Your task to perform on an android device: Go to accessibility settings Image 0: 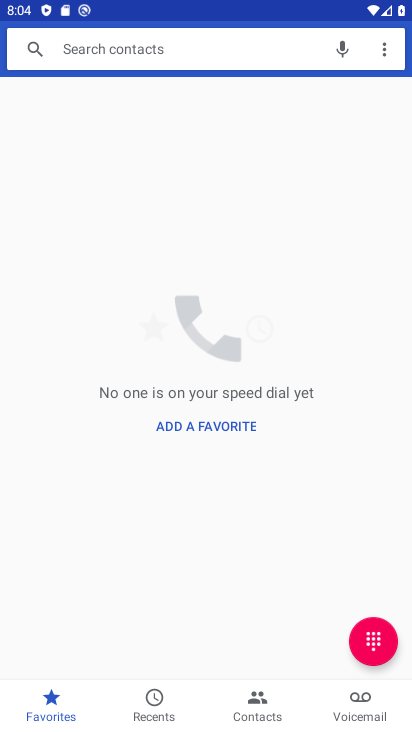
Step 0: press home button
Your task to perform on an android device: Go to accessibility settings Image 1: 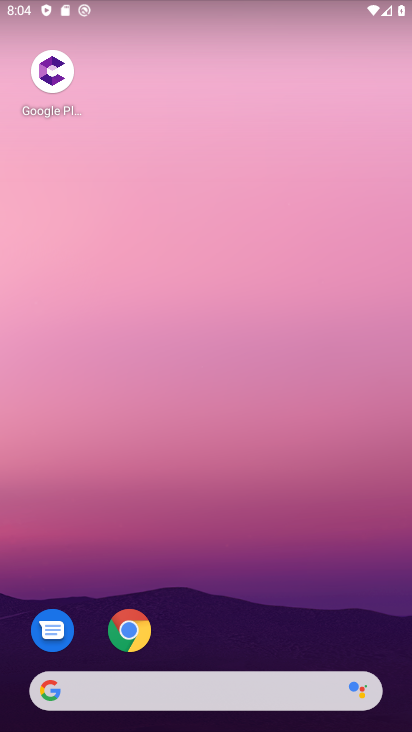
Step 1: drag from (378, 622) to (362, 259)
Your task to perform on an android device: Go to accessibility settings Image 2: 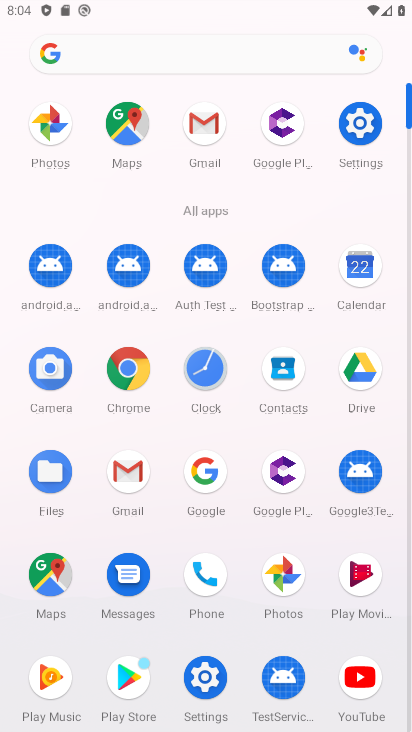
Step 2: click (215, 689)
Your task to perform on an android device: Go to accessibility settings Image 3: 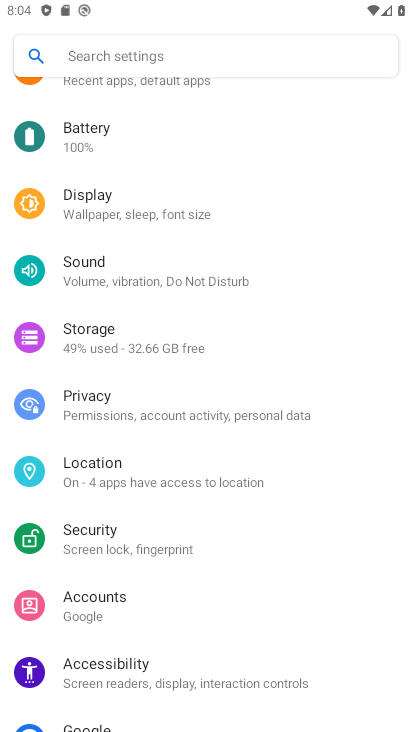
Step 3: drag from (334, 442) to (337, 537)
Your task to perform on an android device: Go to accessibility settings Image 4: 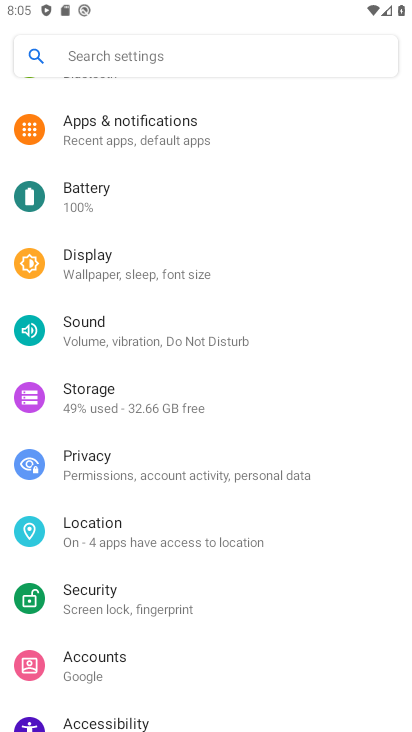
Step 4: drag from (348, 396) to (348, 521)
Your task to perform on an android device: Go to accessibility settings Image 5: 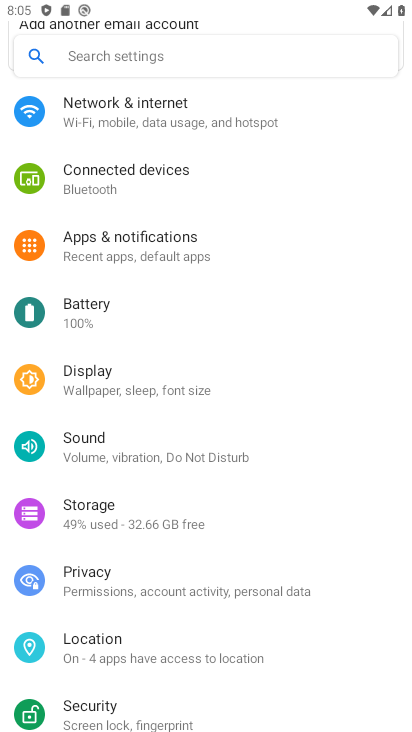
Step 5: drag from (344, 481) to (347, 519)
Your task to perform on an android device: Go to accessibility settings Image 6: 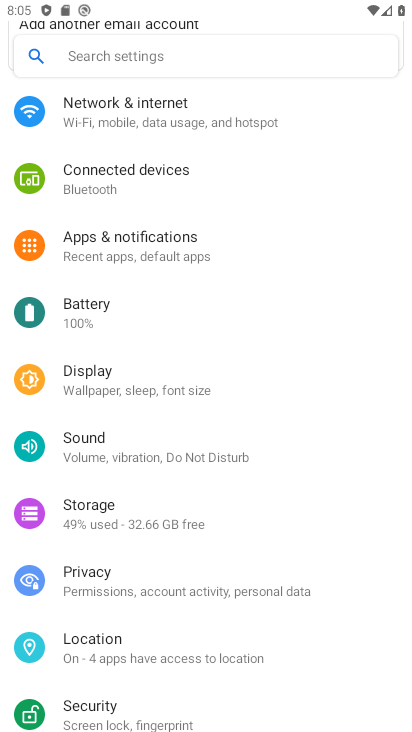
Step 6: drag from (363, 364) to (363, 489)
Your task to perform on an android device: Go to accessibility settings Image 7: 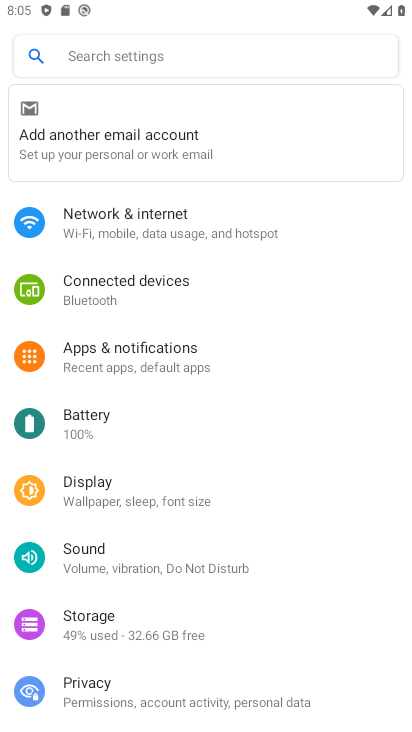
Step 7: drag from (364, 359) to (363, 458)
Your task to perform on an android device: Go to accessibility settings Image 8: 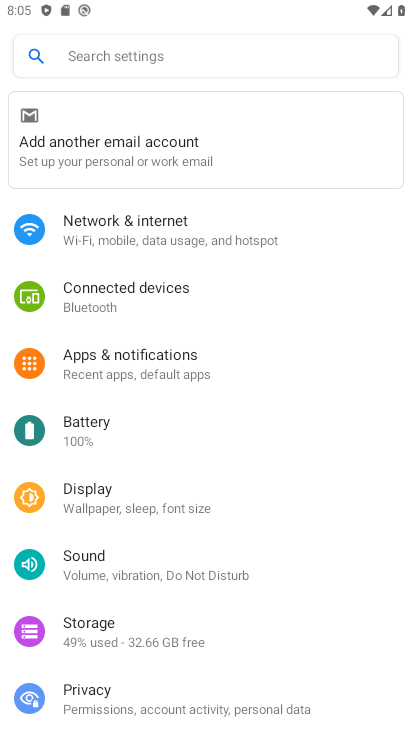
Step 8: drag from (351, 582) to (358, 485)
Your task to perform on an android device: Go to accessibility settings Image 9: 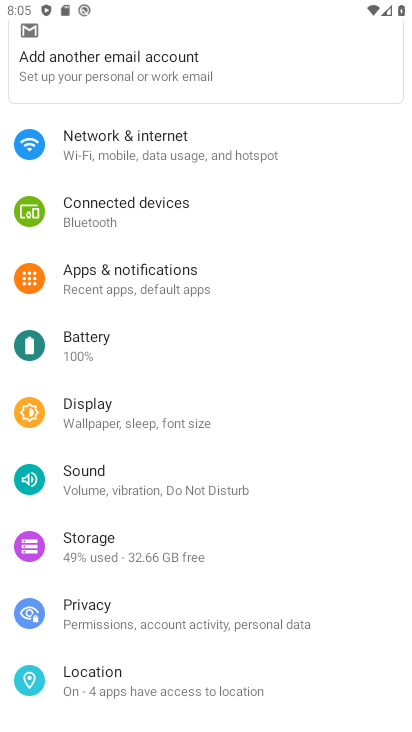
Step 9: drag from (350, 533) to (351, 499)
Your task to perform on an android device: Go to accessibility settings Image 10: 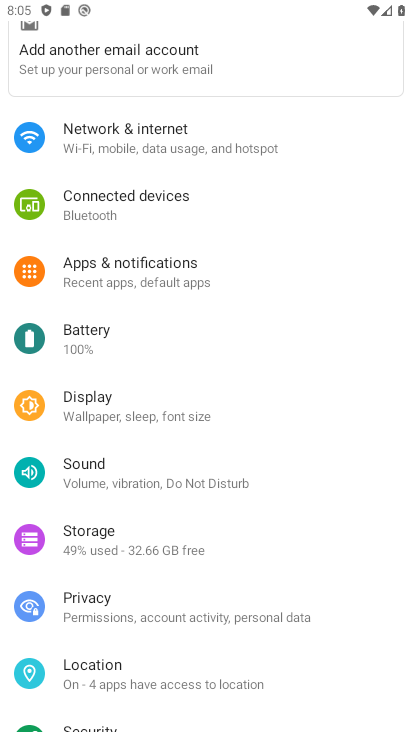
Step 10: drag from (340, 589) to (344, 443)
Your task to perform on an android device: Go to accessibility settings Image 11: 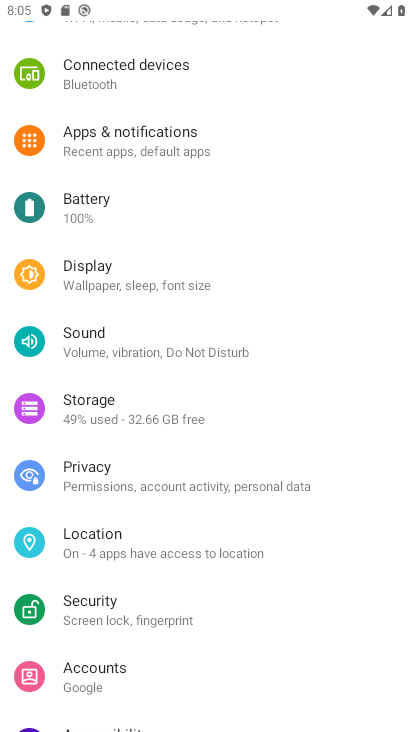
Step 11: drag from (345, 558) to (345, 440)
Your task to perform on an android device: Go to accessibility settings Image 12: 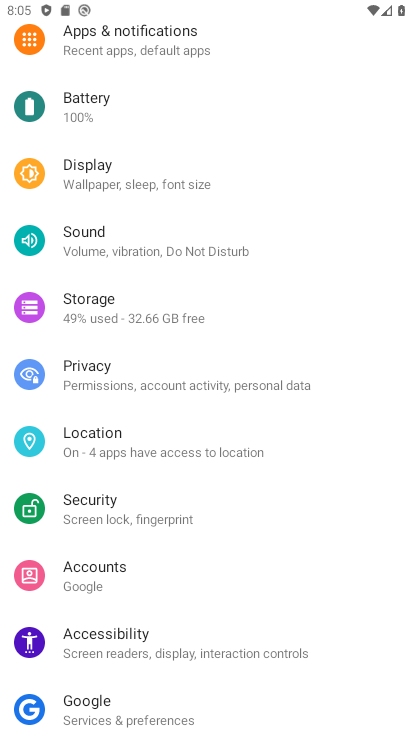
Step 12: drag from (332, 552) to (345, 397)
Your task to perform on an android device: Go to accessibility settings Image 13: 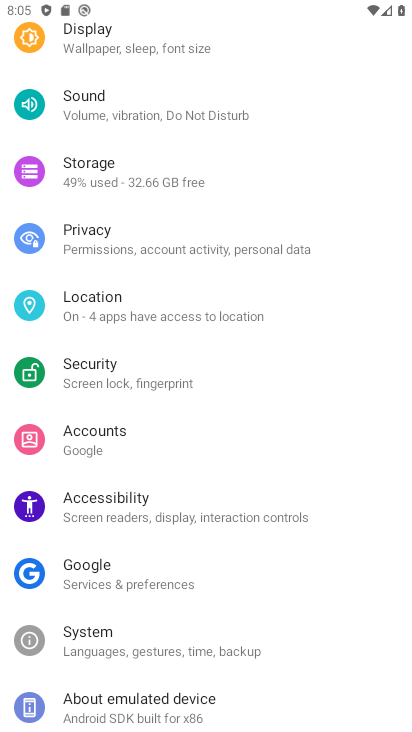
Step 13: drag from (364, 596) to (279, 503)
Your task to perform on an android device: Go to accessibility settings Image 14: 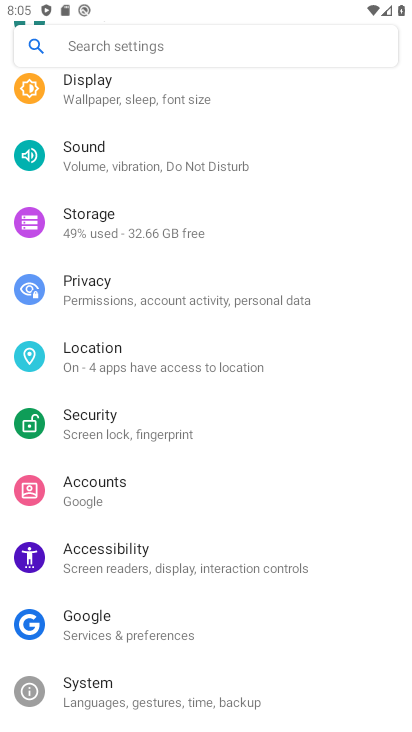
Step 14: click (257, 573)
Your task to perform on an android device: Go to accessibility settings Image 15: 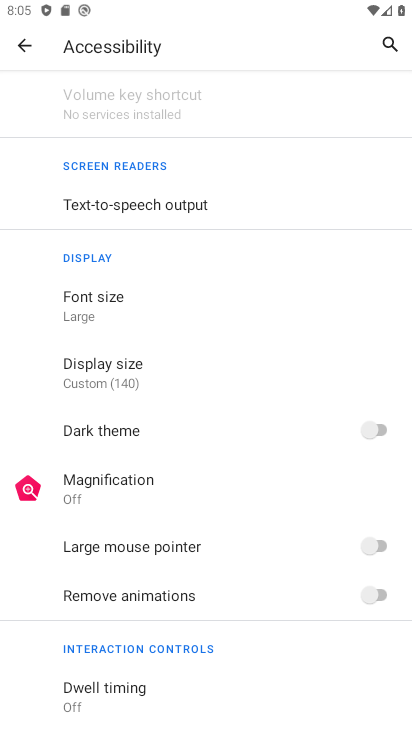
Step 15: task complete